Your task to perform on an android device: install app "Indeed Job Search" Image 0: 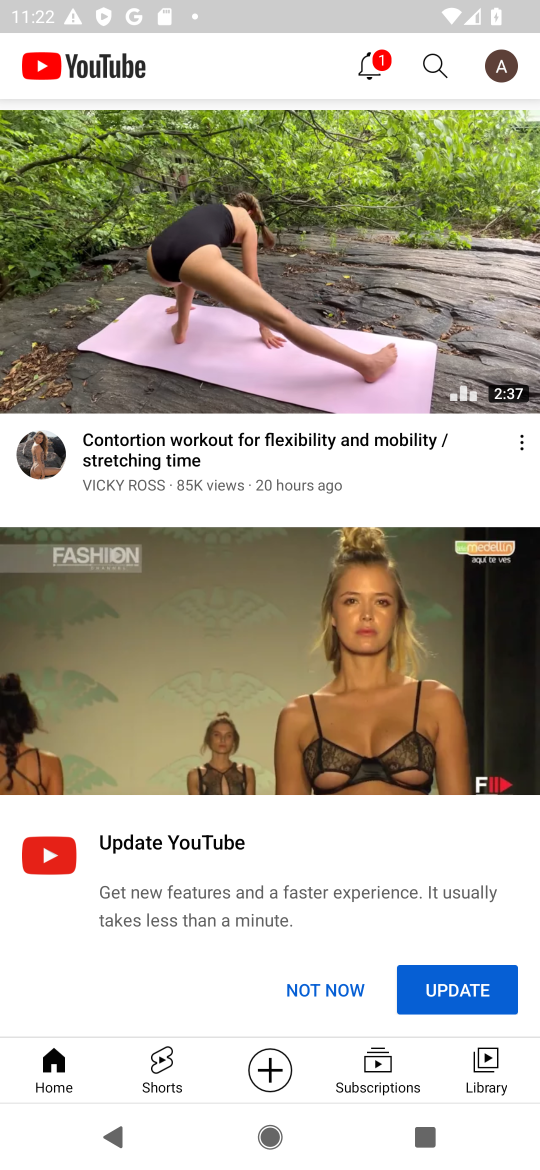
Step 0: press home button
Your task to perform on an android device: install app "Indeed Job Search" Image 1: 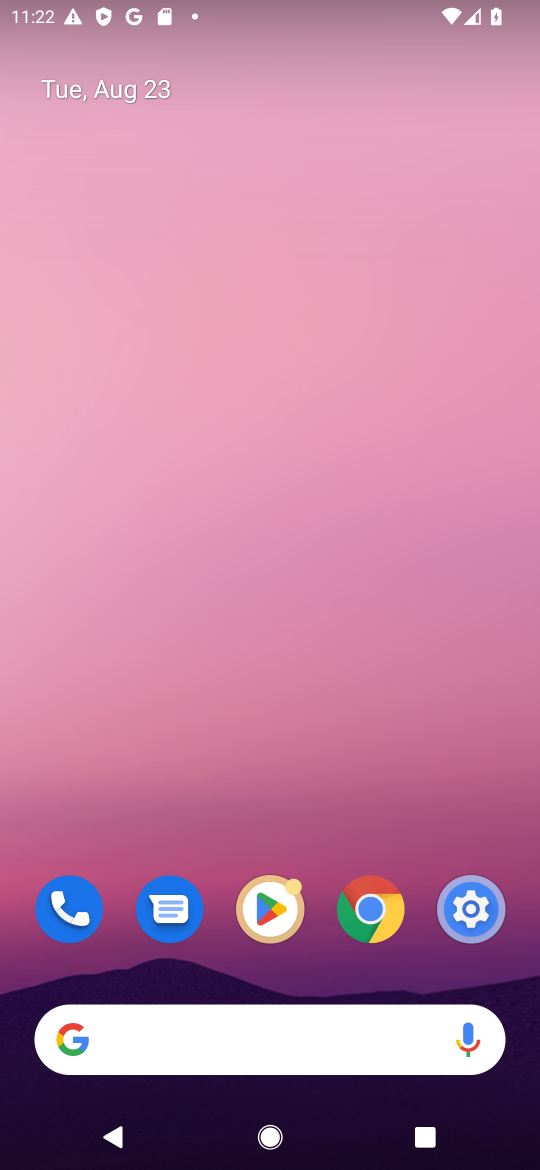
Step 1: click (277, 906)
Your task to perform on an android device: install app "Indeed Job Search" Image 2: 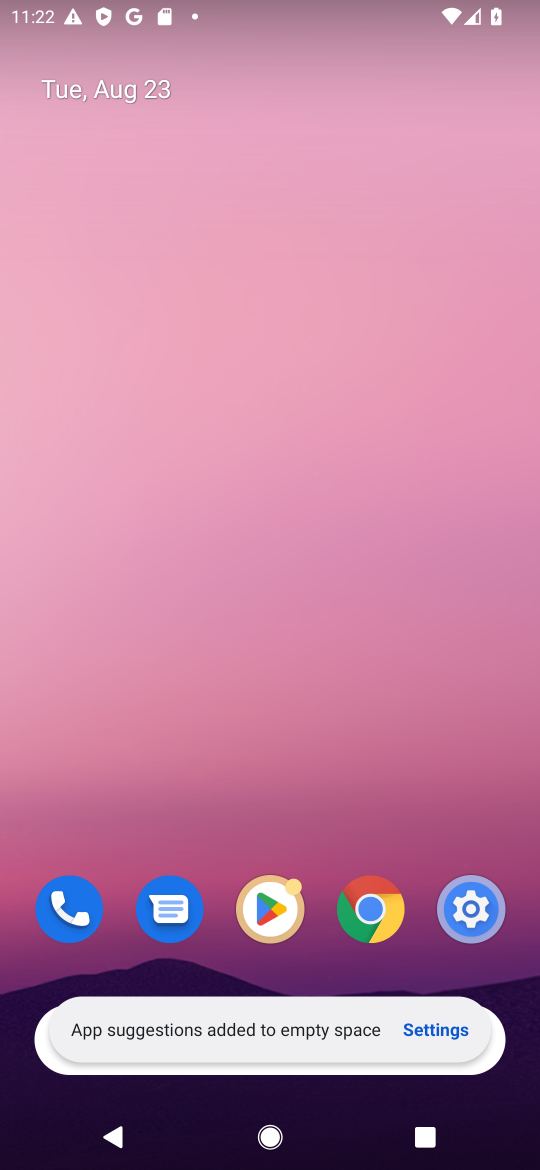
Step 2: click (277, 906)
Your task to perform on an android device: install app "Indeed Job Search" Image 3: 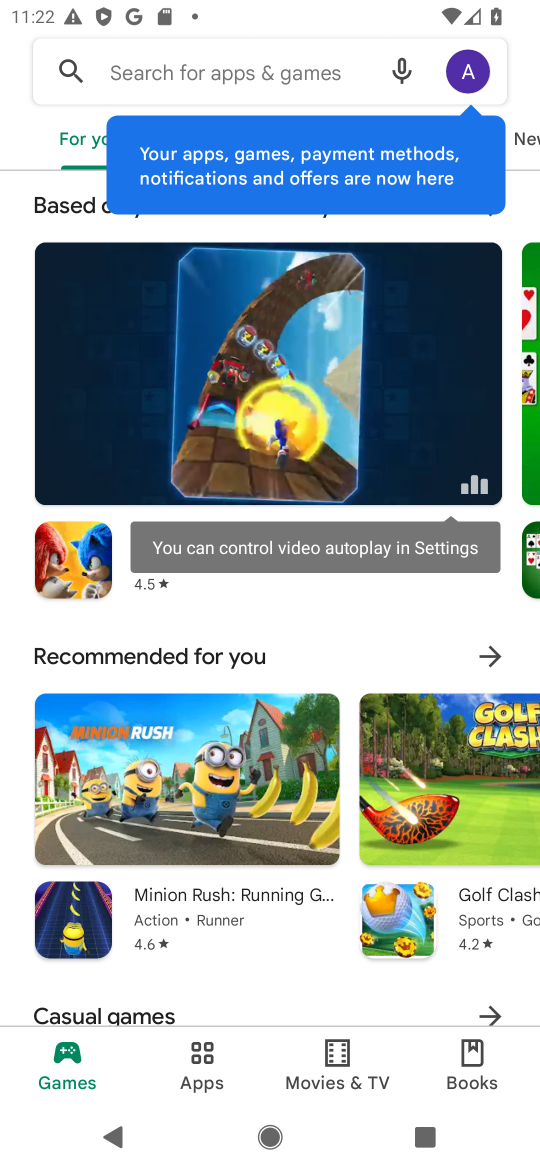
Step 3: click (246, 114)
Your task to perform on an android device: install app "Indeed Job Search" Image 4: 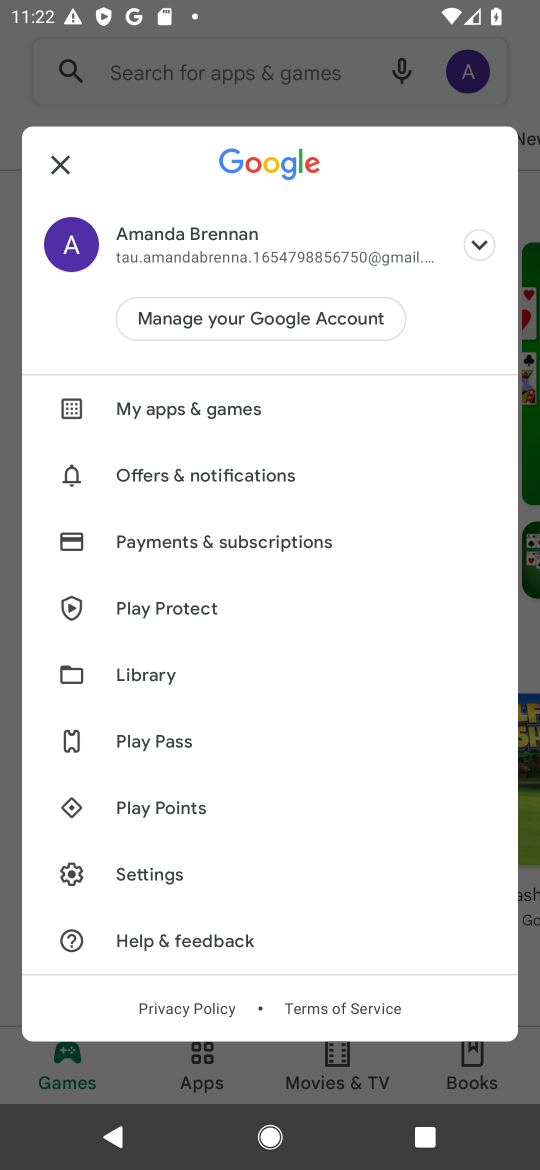
Step 4: click (205, 74)
Your task to perform on an android device: install app "Indeed Job Search" Image 5: 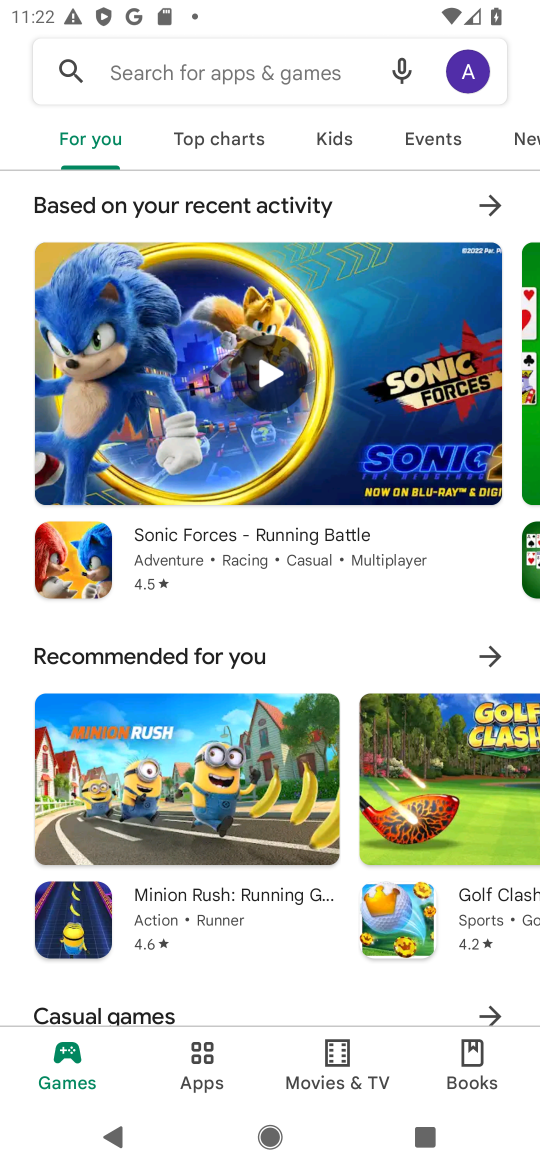
Step 5: click (246, 83)
Your task to perform on an android device: install app "Indeed Job Search" Image 6: 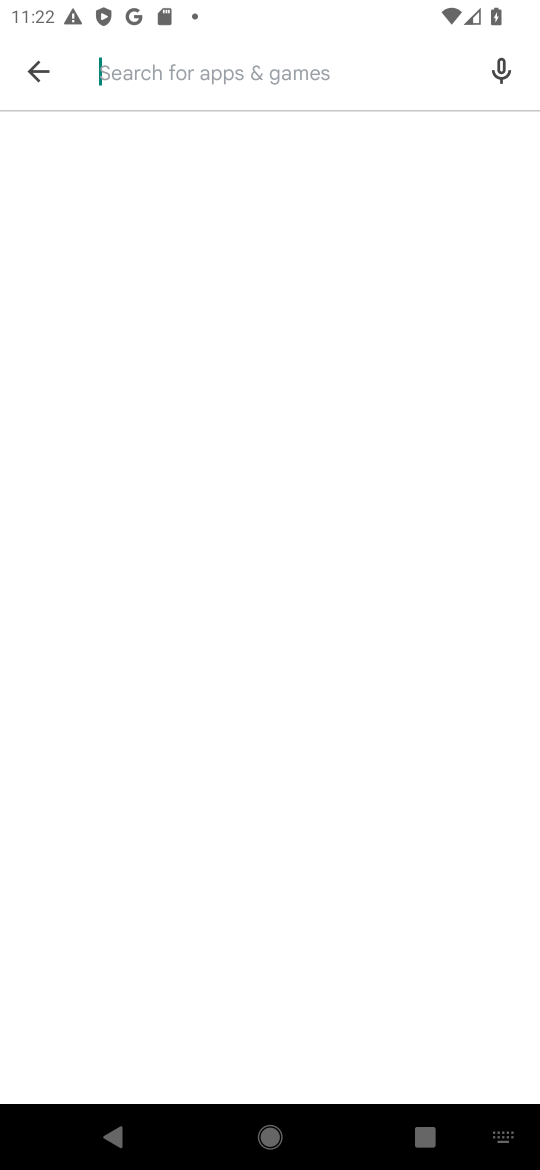
Step 6: type "indeed job search"
Your task to perform on an android device: install app "Indeed Job Search" Image 7: 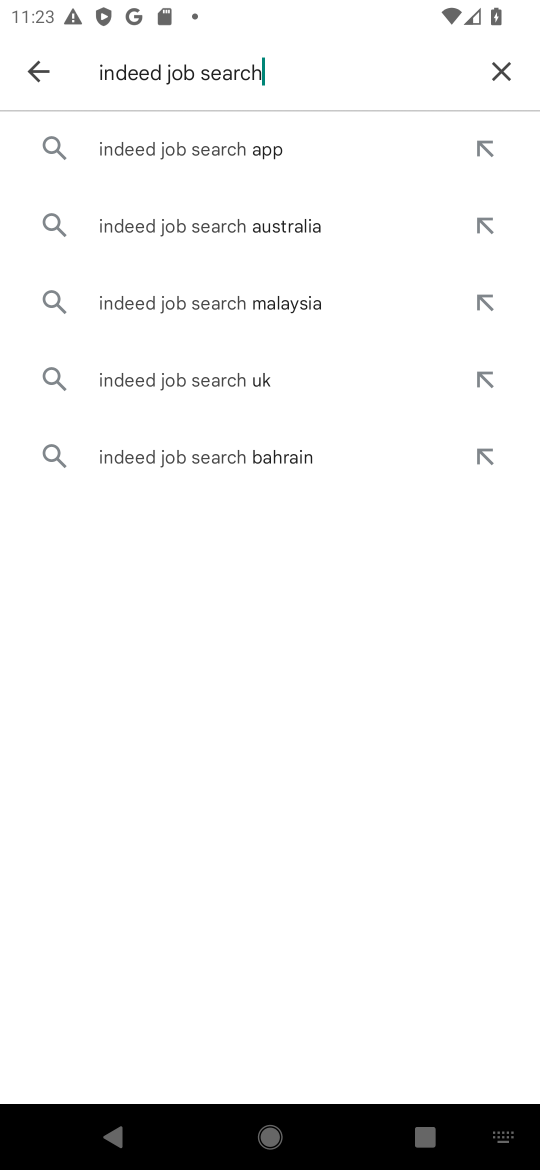
Step 7: click (201, 153)
Your task to perform on an android device: install app "Indeed Job Search" Image 8: 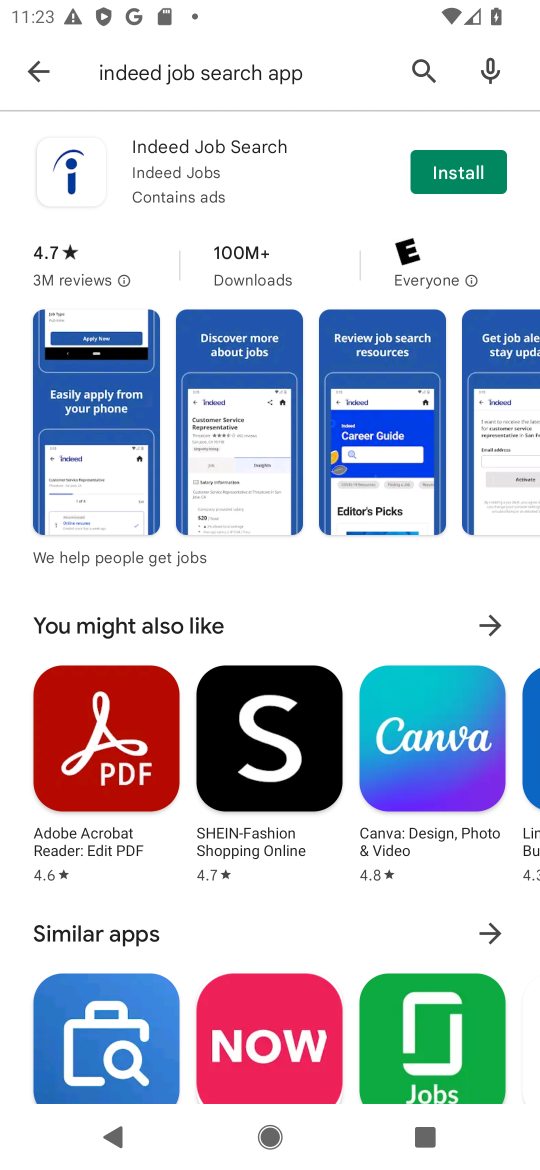
Step 8: click (468, 172)
Your task to perform on an android device: install app "Indeed Job Search" Image 9: 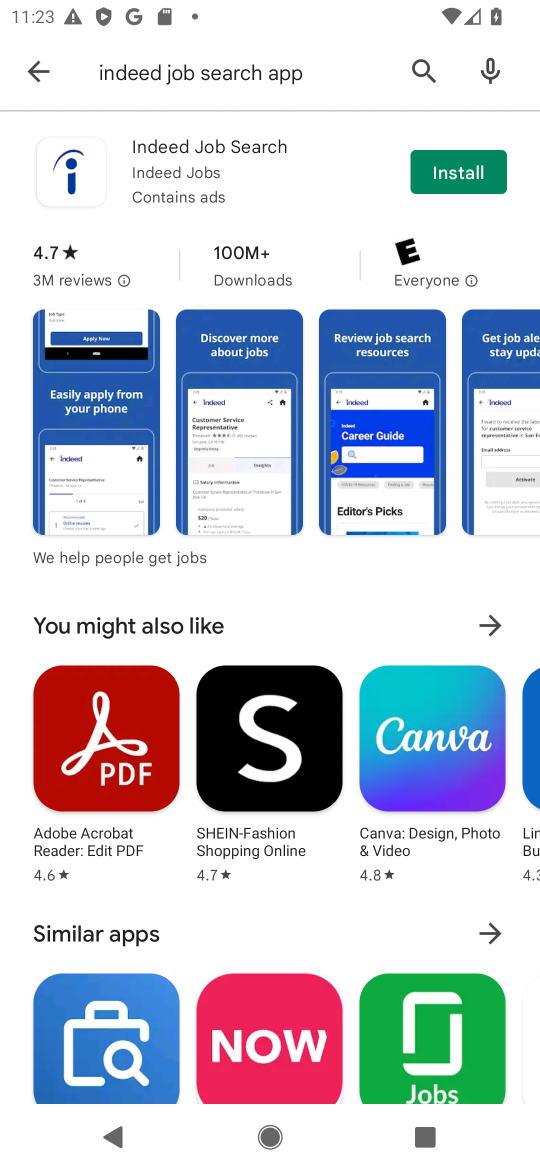
Step 9: click (459, 174)
Your task to perform on an android device: install app "Indeed Job Search" Image 10: 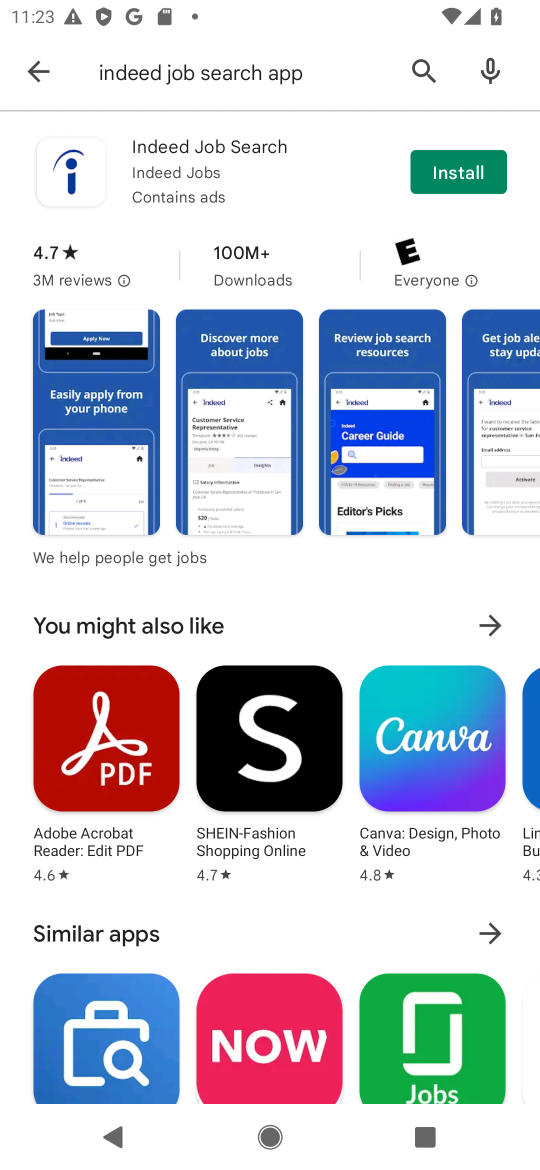
Step 10: click (443, 168)
Your task to perform on an android device: install app "Indeed Job Search" Image 11: 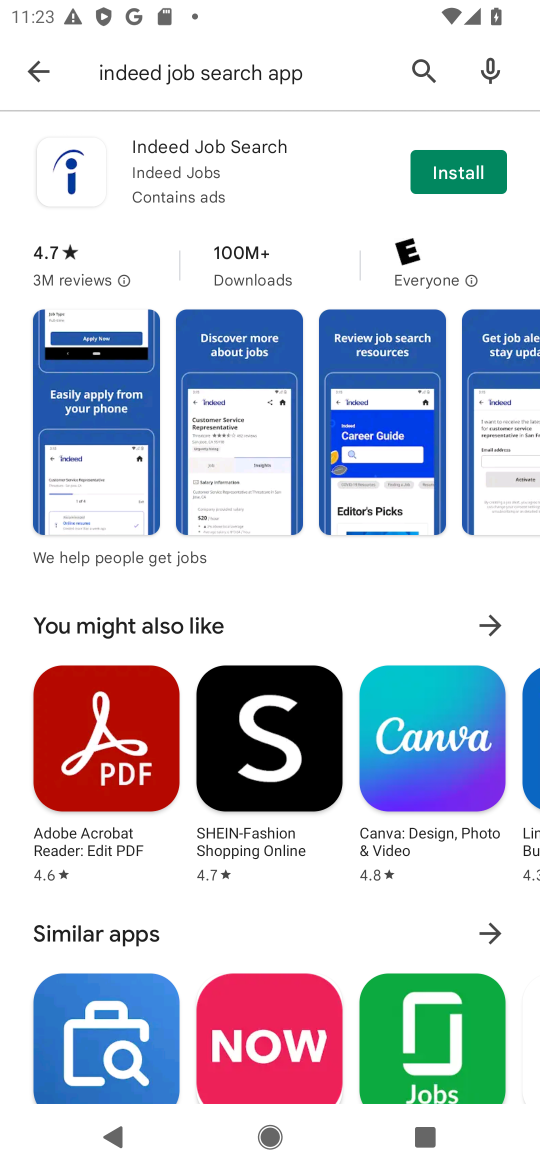
Step 11: task complete